Your task to perform on an android device: add a contact Image 0: 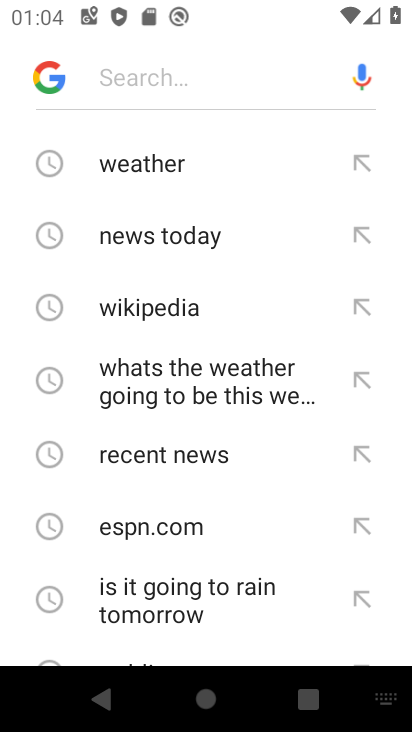
Step 0: press home button
Your task to perform on an android device: add a contact Image 1: 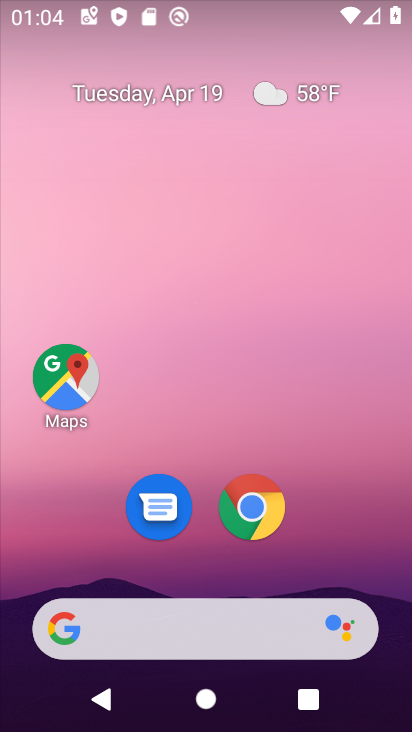
Step 1: drag from (132, 544) to (214, 270)
Your task to perform on an android device: add a contact Image 2: 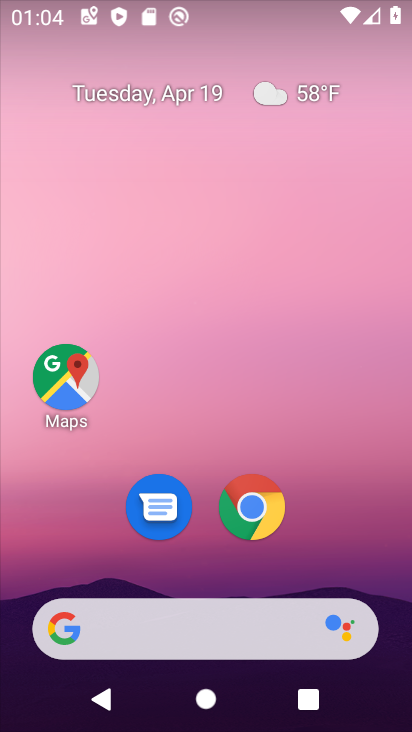
Step 2: drag from (187, 581) to (199, 215)
Your task to perform on an android device: add a contact Image 3: 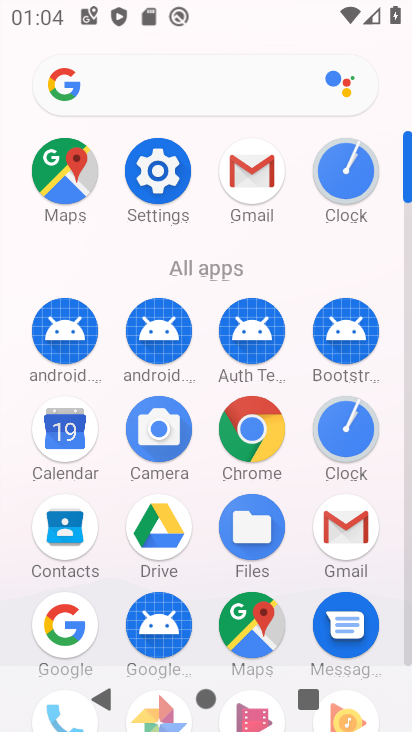
Step 3: click (61, 546)
Your task to perform on an android device: add a contact Image 4: 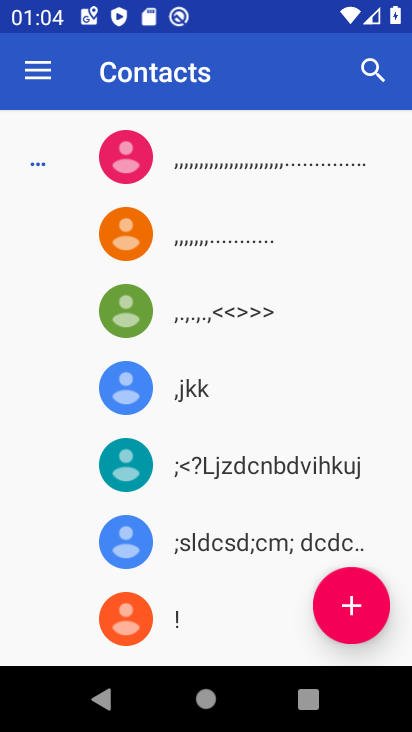
Step 4: click (353, 624)
Your task to perform on an android device: add a contact Image 5: 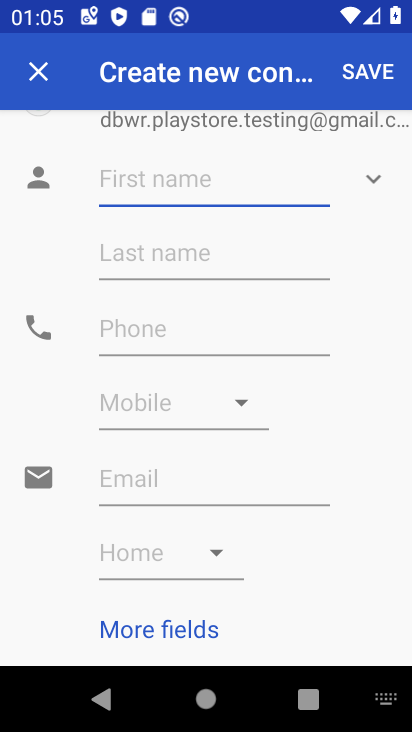
Step 5: type "dcdcd"
Your task to perform on an android device: add a contact Image 6: 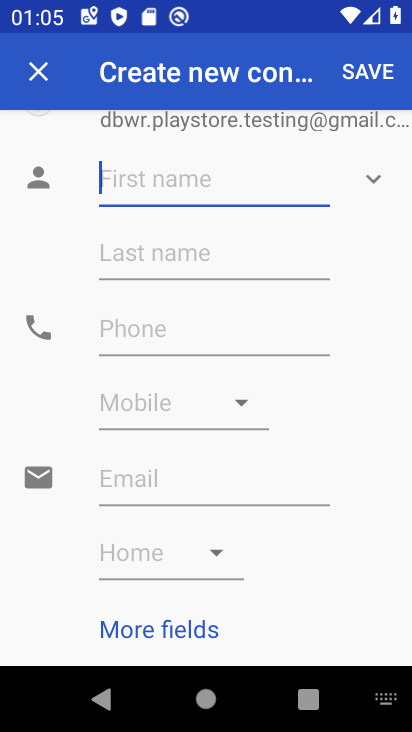
Step 6: click (109, 259)
Your task to perform on an android device: add a contact Image 7: 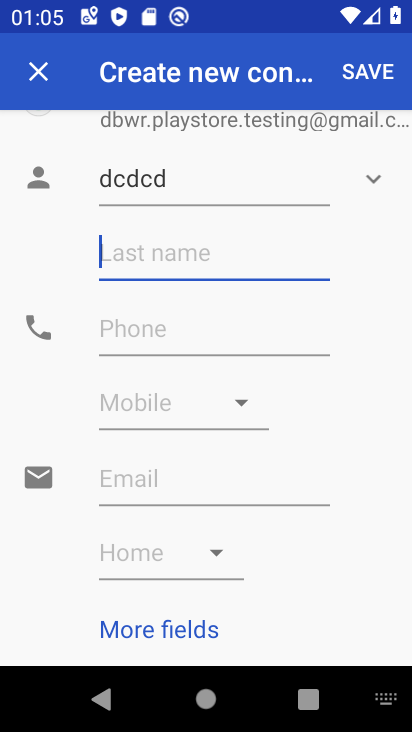
Step 7: type "dcd"
Your task to perform on an android device: add a contact Image 8: 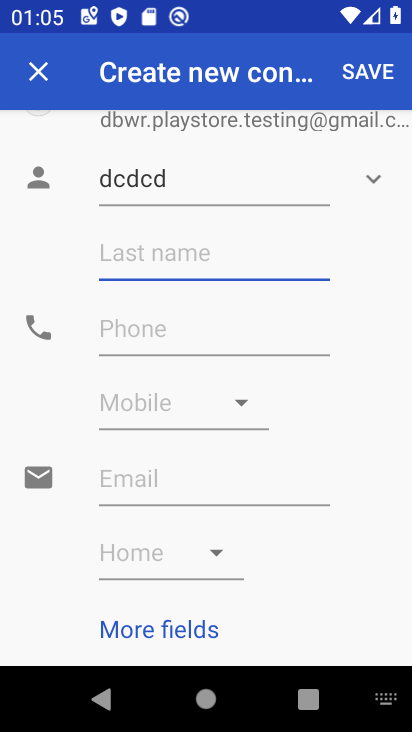
Step 8: click (104, 329)
Your task to perform on an android device: add a contact Image 9: 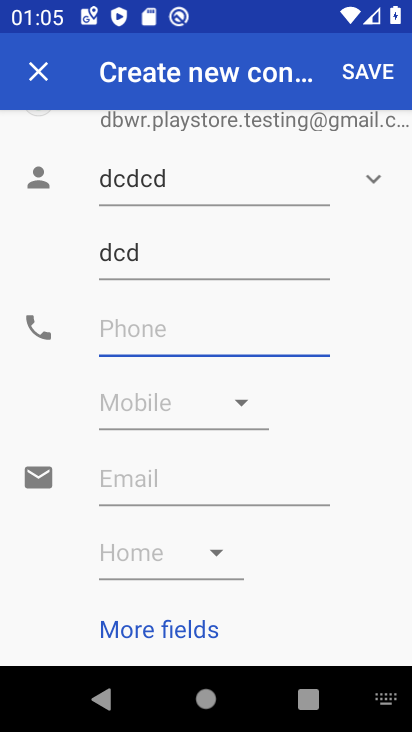
Step 9: type "32525"
Your task to perform on an android device: add a contact Image 10: 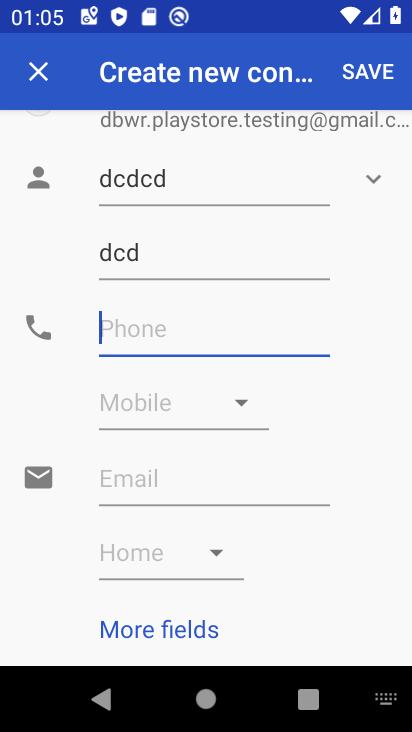
Step 10: click (105, 392)
Your task to perform on an android device: add a contact Image 11: 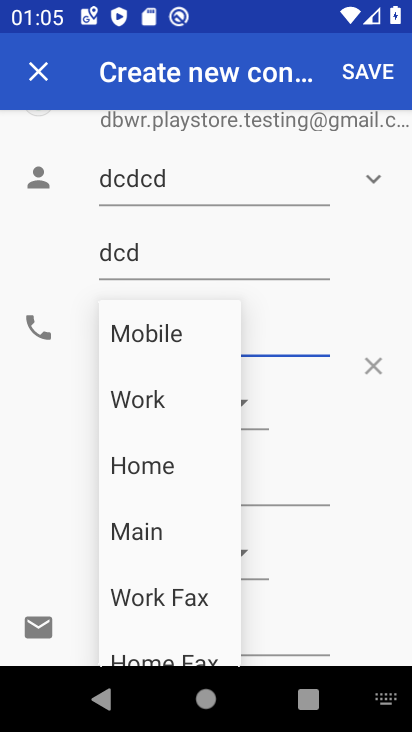
Step 11: click (393, 83)
Your task to perform on an android device: add a contact Image 12: 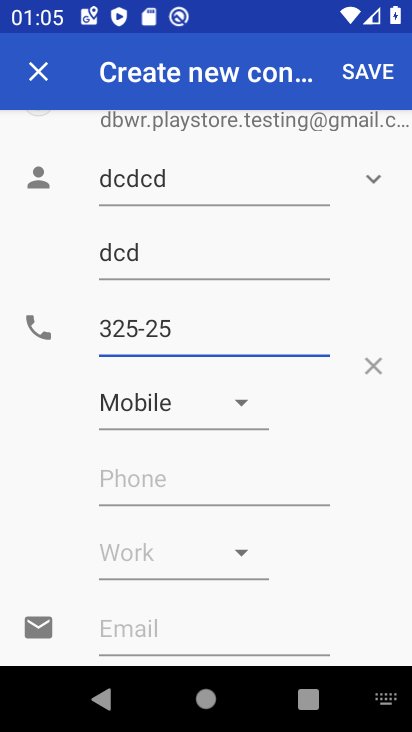
Step 12: task complete